Your task to perform on an android device: set an alarm Image 0: 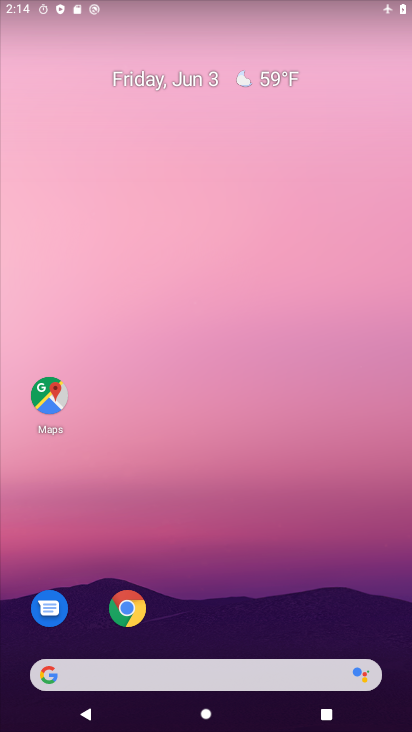
Step 0: drag from (172, 662) to (165, 203)
Your task to perform on an android device: set an alarm Image 1: 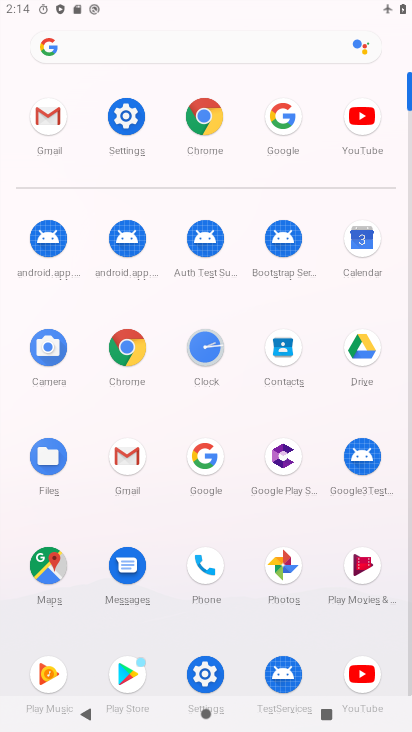
Step 1: click (221, 358)
Your task to perform on an android device: set an alarm Image 2: 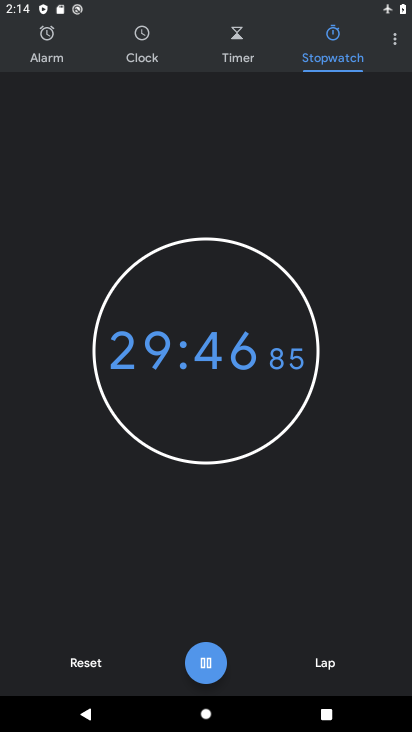
Step 2: click (33, 67)
Your task to perform on an android device: set an alarm Image 3: 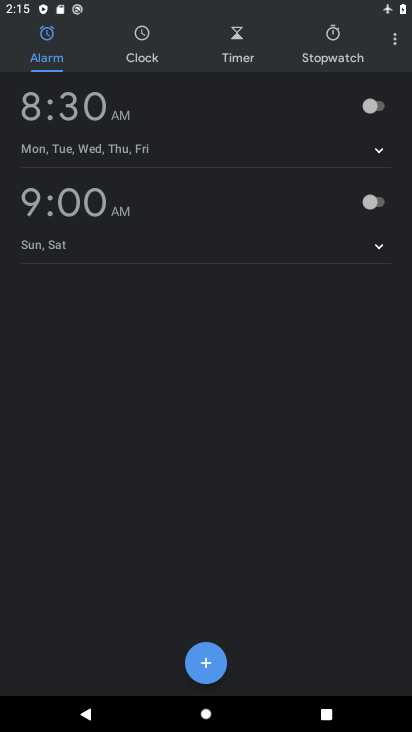
Step 3: click (196, 654)
Your task to perform on an android device: set an alarm Image 4: 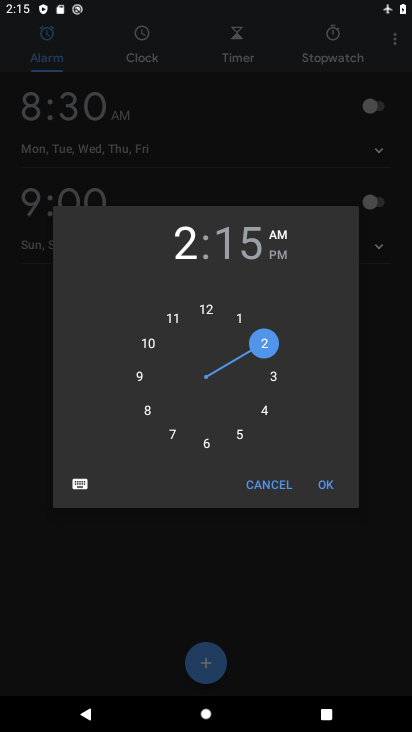
Step 4: click (186, 427)
Your task to perform on an android device: set an alarm Image 5: 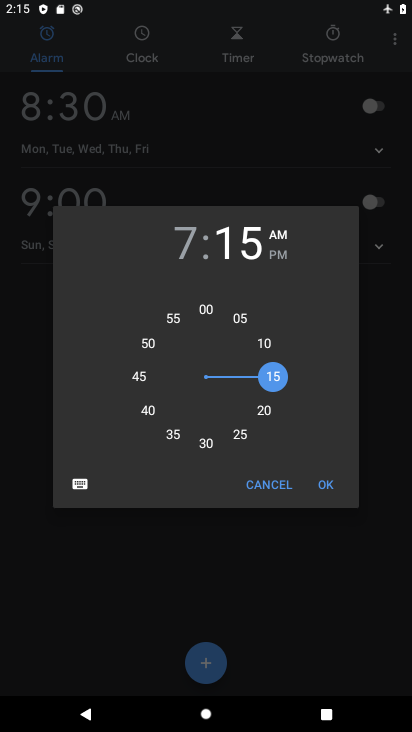
Step 5: click (340, 459)
Your task to perform on an android device: set an alarm Image 6: 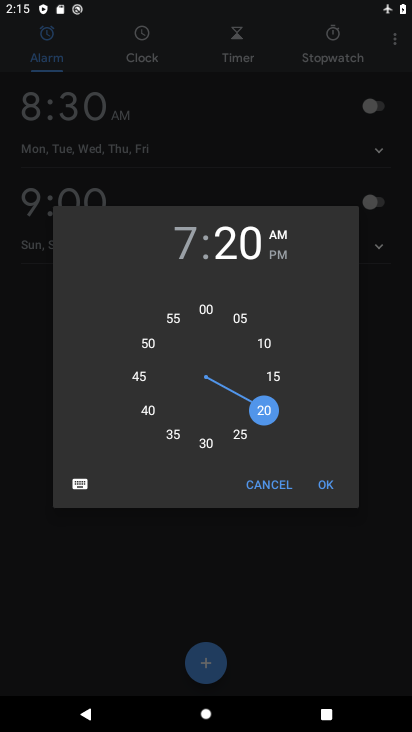
Step 6: click (339, 490)
Your task to perform on an android device: set an alarm Image 7: 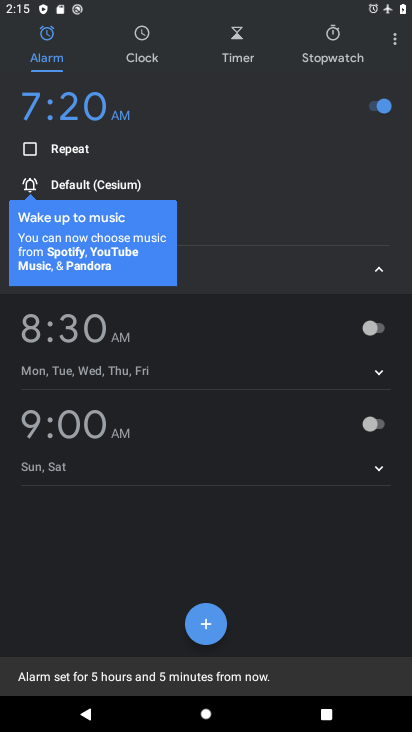
Step 7: task complete